Your task to perform on an android device: Open calendar and show me the fourth week of next month Image 0: 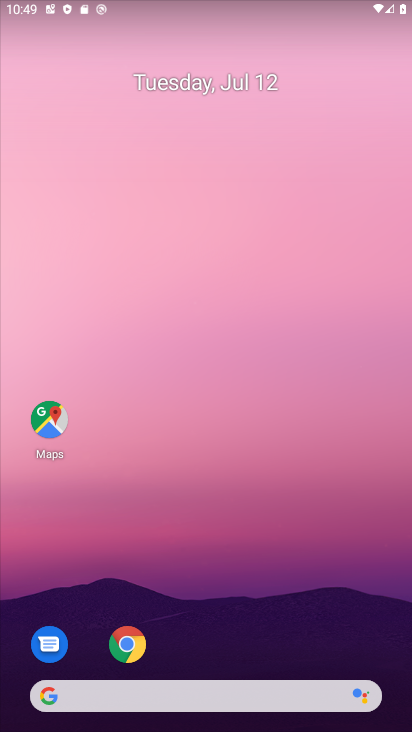
Step 0: press home button
Your task to perform on an android device: Open calendar and show me the fourth week of next month Image 1: 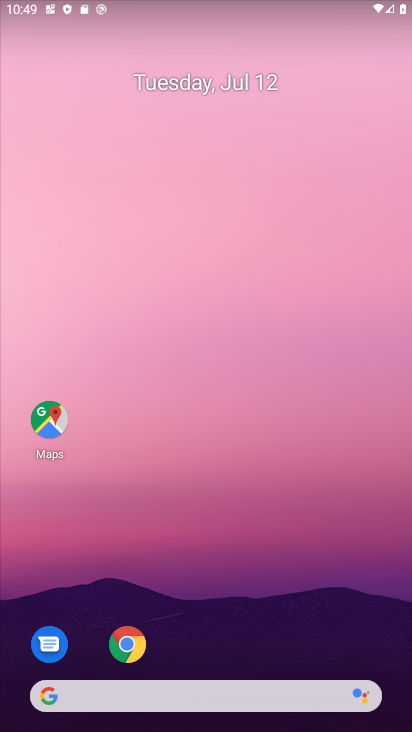
Step 1: drag from (217, 650) to (189, 32)
Your task to perform on an android device: Open calendar and show me the fourth week of next month Image 2: 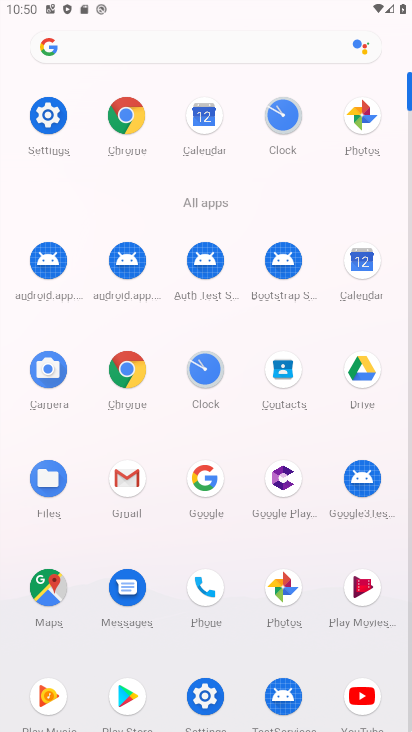
Step 2: click (360, 258)
Your task to perform on an android device: Open calendar and show me the fourth week of next month Image 3: 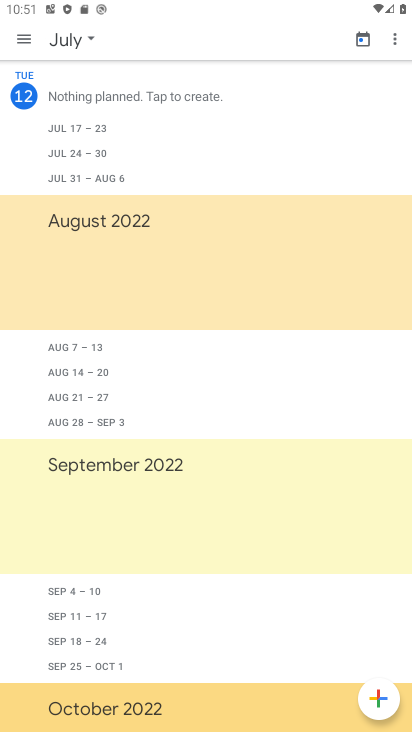
Step 3: click (81, 31)
Your task to perform on an android device: Open calendar and show me the fourth week of next month Image 4: 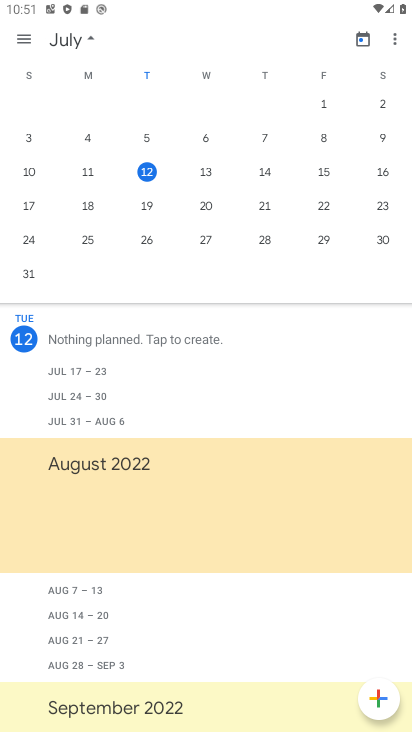
Step 4: drag from (372, 198) to (22, 185)
Your task to perform on an android device: Open calendar and show me the fourth week of next month Image 5: 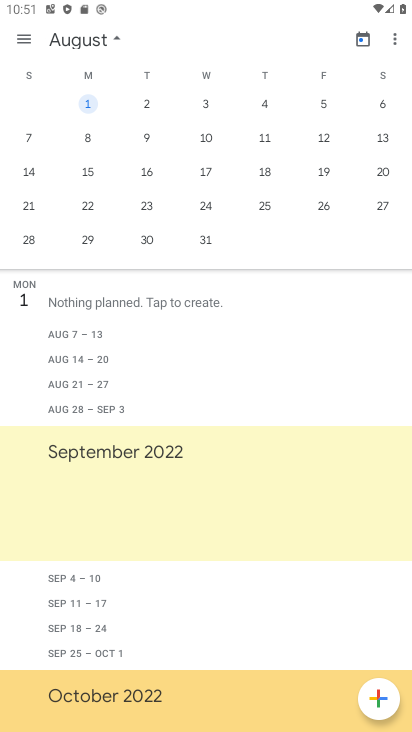
Step 5: click (30, 202)
Your task to perform on an android device: Open calendar and show me the fourth week of next month Image 6: 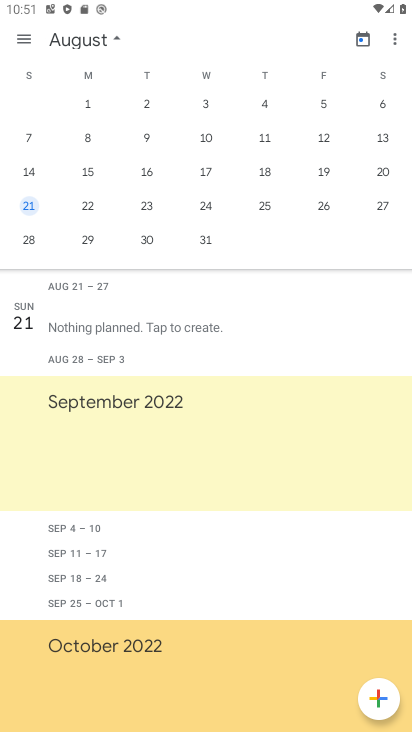
Step 6: click (110, 36)
Your task to perform on an android device: Open calendar and show me the fourth week of next month Image 7: 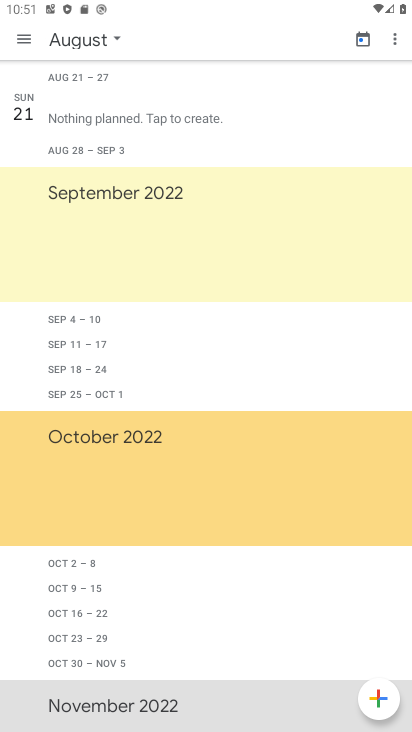
Step 7: click (21, 39)
Your task to perform on an android device: Open calendar and show me the fourth week of next month Image 8: 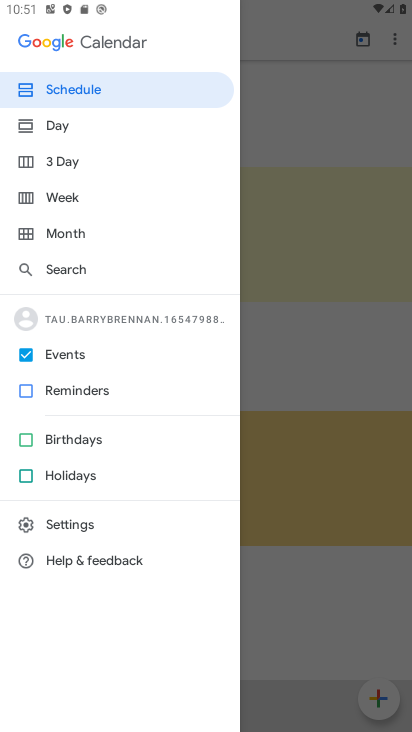
Step 8: click (72, 189)
Your task to perform on an android device: Open calendar and show me the fourth week of next month Image 9: 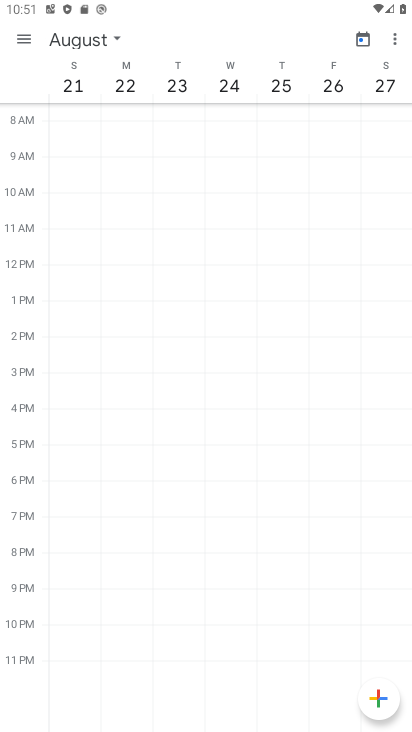
Step 9: task complete